Your task to perform on an android device: turn off wifi Image 0: 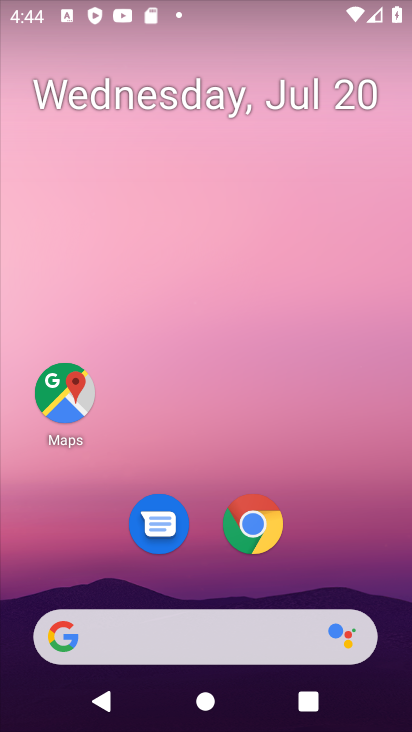
Step 0: drag from (305, 463) to (294, 12)
Your task to perform on an android device: turn off wifi Image 1: 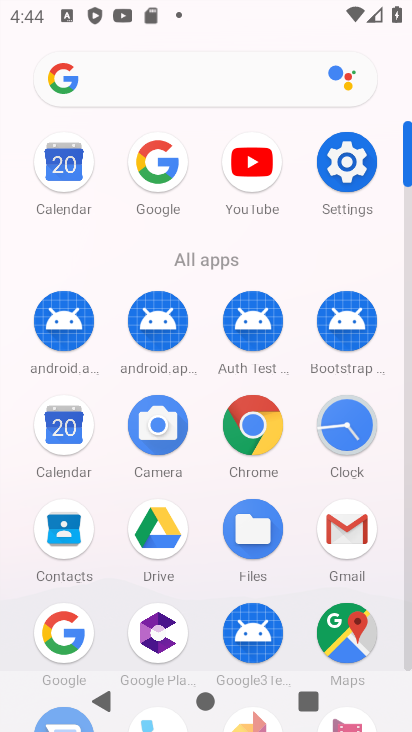
Step 1: click (360, 169)
Your task to perform on an android device: turn off wifi Image 2: 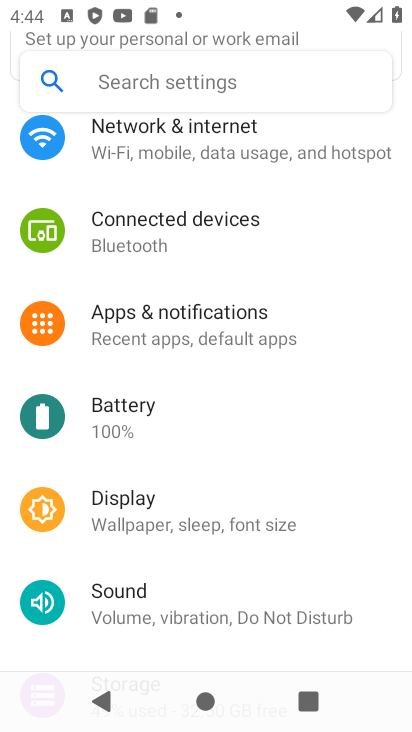
Step 2: click (263, 136)
Your task to perform on an android device: turn off wifi Image 3: 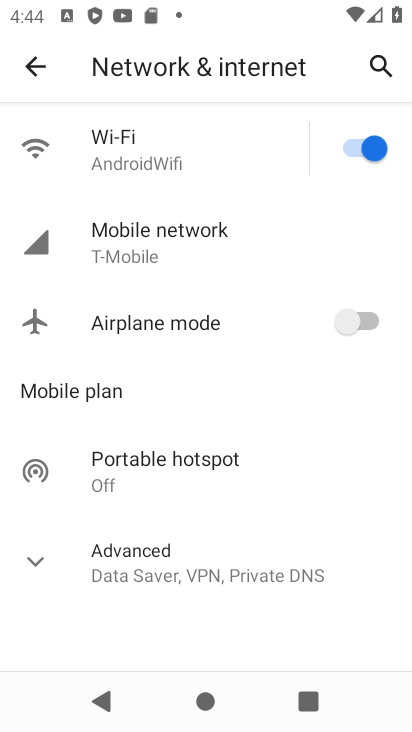
Step 3: click (369, 149)
Your task to perform on an android device: turn off wifi Image 4: 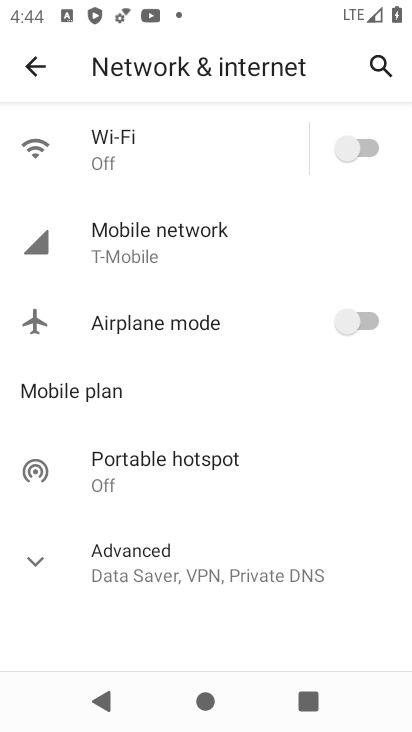
Step 4: task complete